Your task to perform on an android device: empty trash in google photos Image 0: 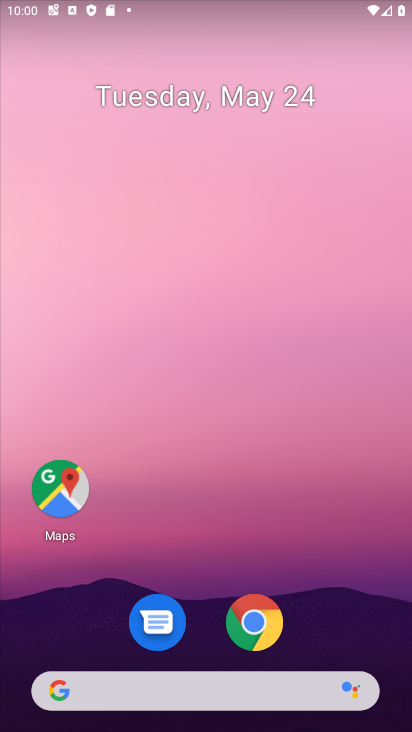
Step 0: drag from (285, 659) to (248, 280)
Your task to perform on an android device: empty trash in google photos Image 1: 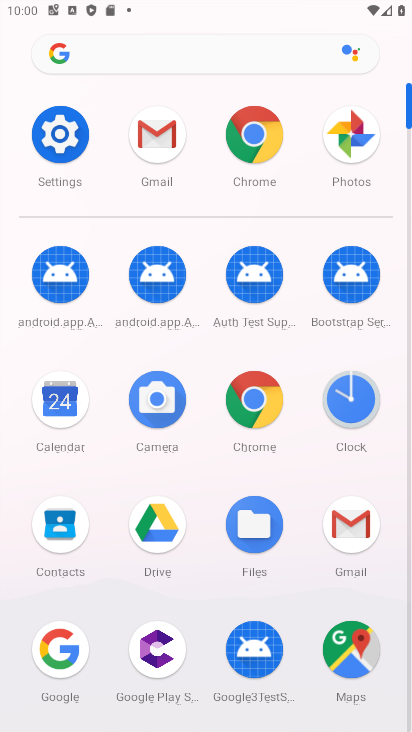
Step 1: drag from (195, 473) to (206, 312)
Your task to perform on an android device: empty trash in google photos Image 2: 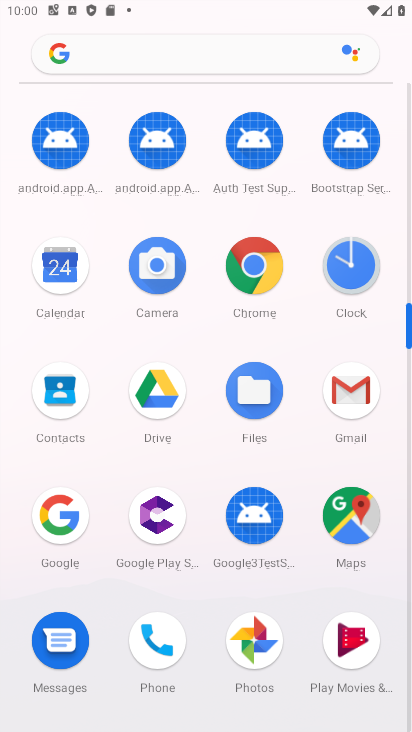
Step 2: click (269, 639)
Your task to perform on an android device: empty trash in google photos Image 3: 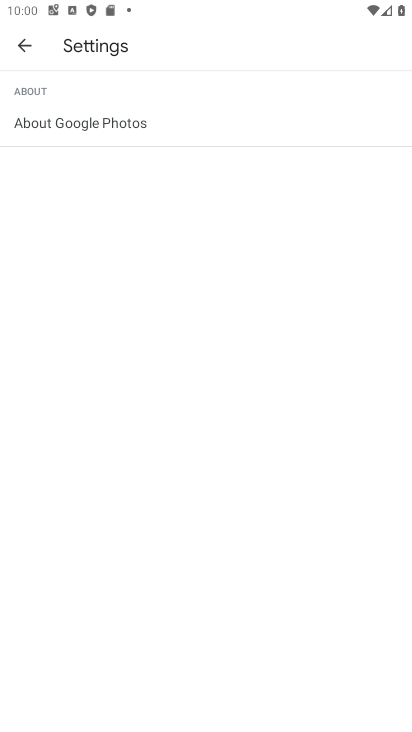
Step 3: click (29, 58)
Your task to perform on an android device: empty trash in google photos Image 4: 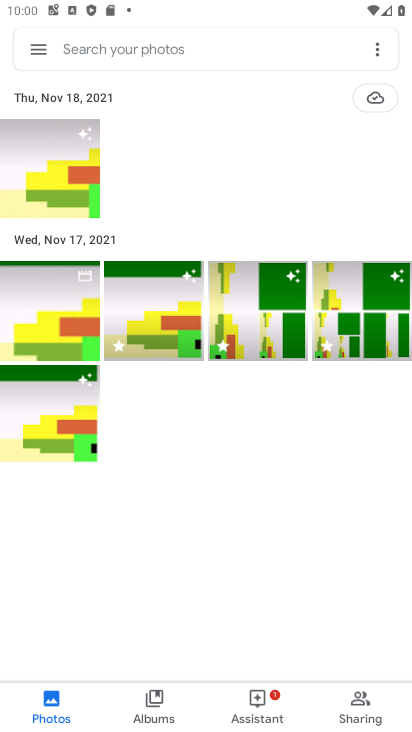
Step 4: click (33, 50)
Your task to perform on an android device: empty trash in google photos Image 5: 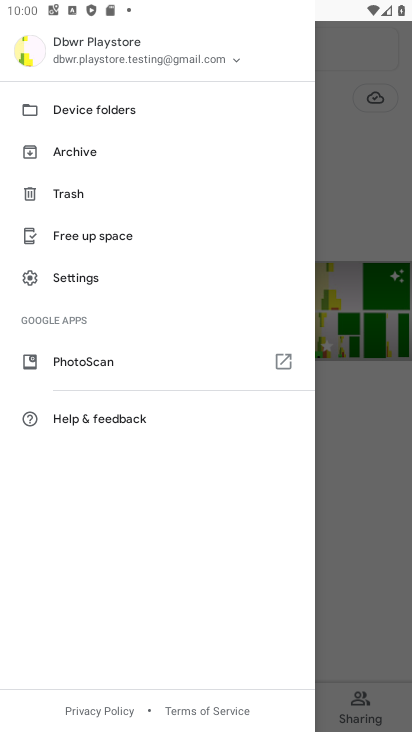
Step 5: click (83, 196)
Your task to perform on an android device: empty trash in google photos Image 6: 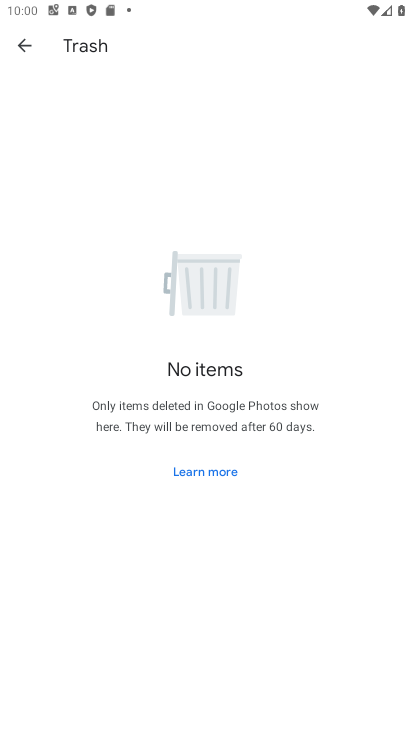
Step 6: task complete